Your task to perform on an android device: choose inbox layout in the gmail app Image 0: 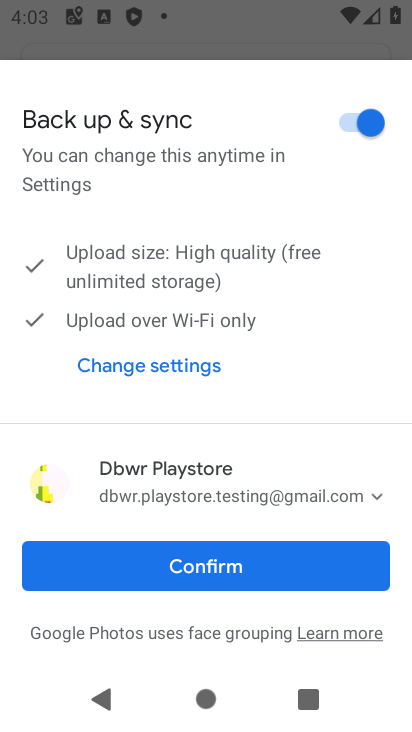
Step 0: press home button
Your task to perform on an android device: choose inbox layout in the gmail app Image 1: 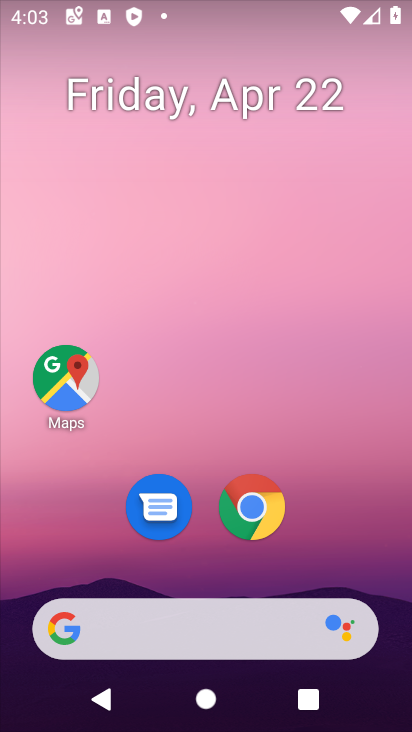
Step 1: drag from (334, 536) to (273, 86)
Your task to perform on an android device: choose inbox layout in the gmail app Image 2: 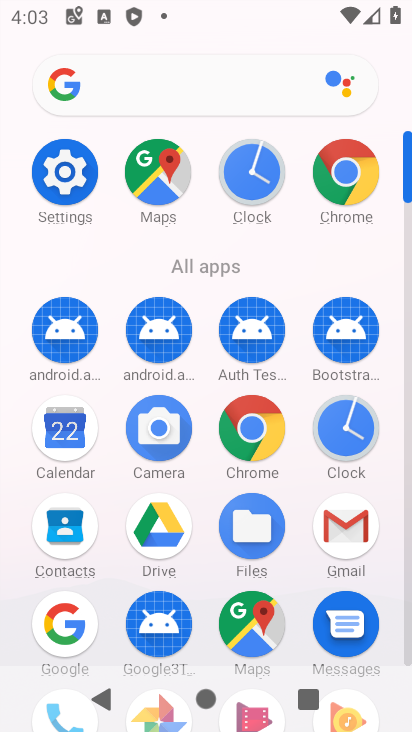
Step 2: click (347, 520)
Your task to perform on an android device: choose inbox layout in the gmail app Image 3: 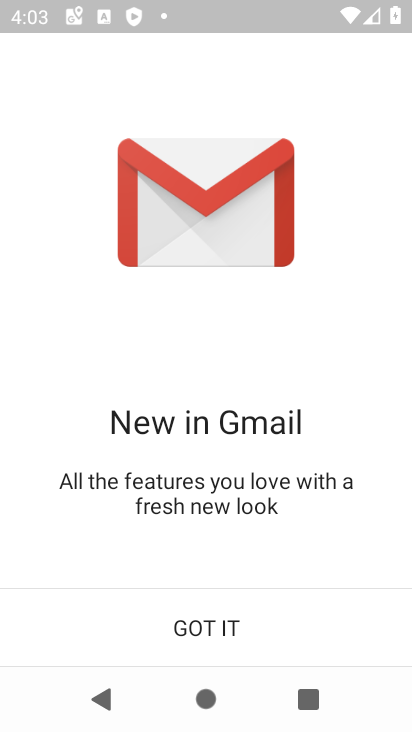
Step 3: click (275, 628)
Your task to perform on an android device: choose inbox layout in the gmail app Image 4: 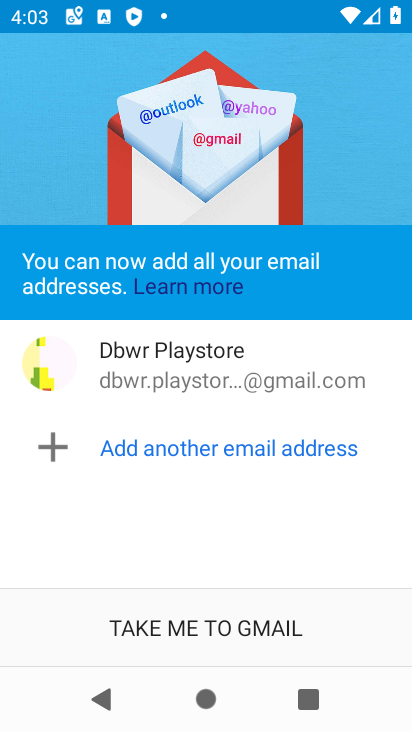
Step 4: click (275, 626)
Your task to perform on an android device: choose inbox layout in the gmail app Image 5: 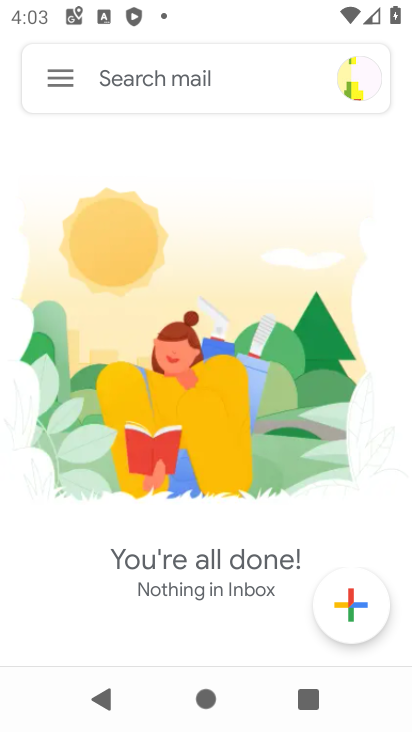
Step 5: click (57, 76)
Your task to perform on an android device: choose inbox layout in the gmail app Image 6: 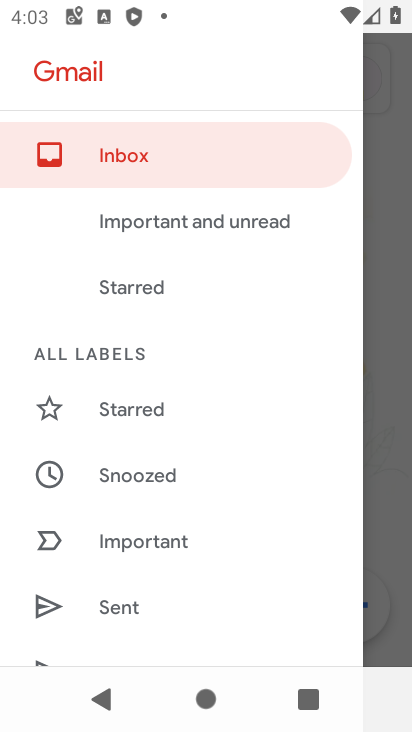
Step 6: drag from (213, 577) to (238, 165)
Your task to perform on an android device: choose inbox layout in the gmail app Image 7: 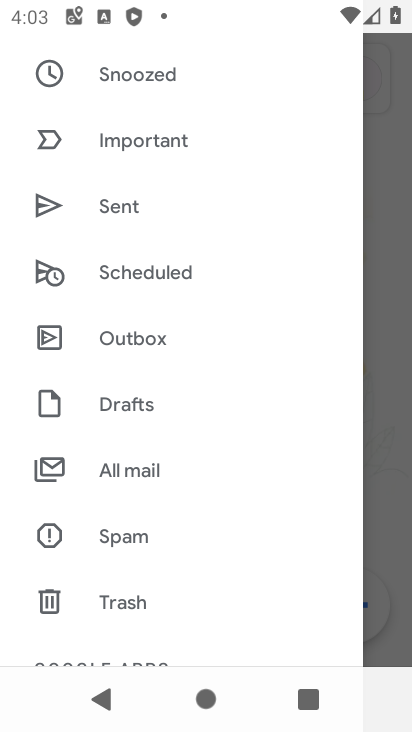
Step 7: drag from (201, 569) to (214, 143)
Your task to perform on an android device: choose inbox layout in the gmail app Image 8: 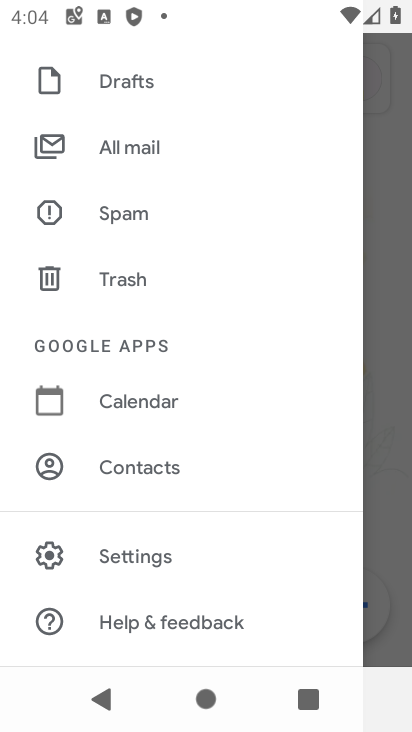
Step 8: click (172, 548)
Your task to perform on an android device: choose inbox layout in the gmail app Image 9: 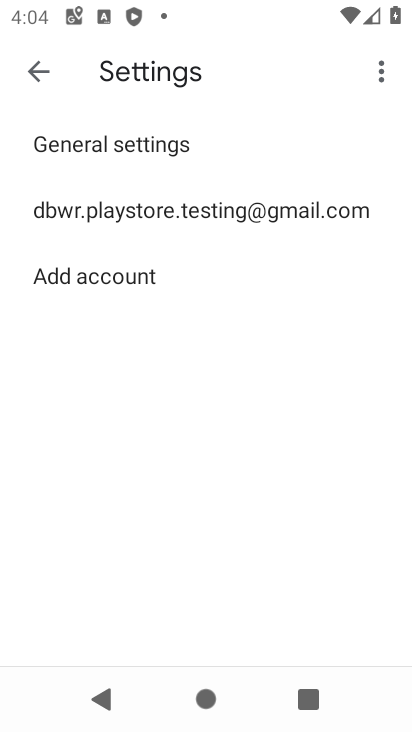
Step 9: click (216, 208)
Your task to perform on an android device: choose inbox layout in the gmail app Image 10: 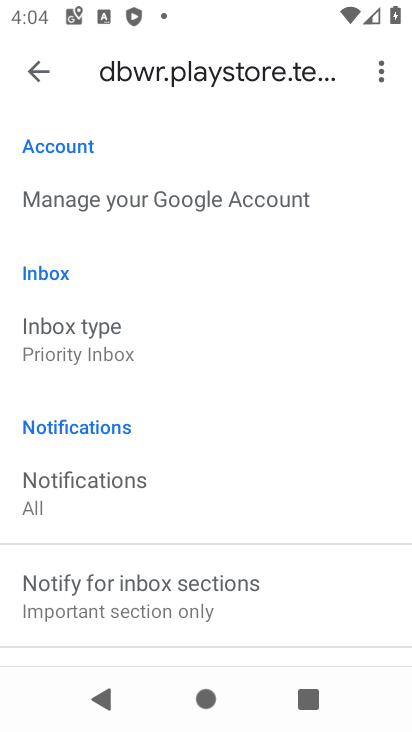
Step 10: drag from (228, 495) to (241, 401)
Your task to perform on an android device: choose inbox layout in the gmail app Image 11: 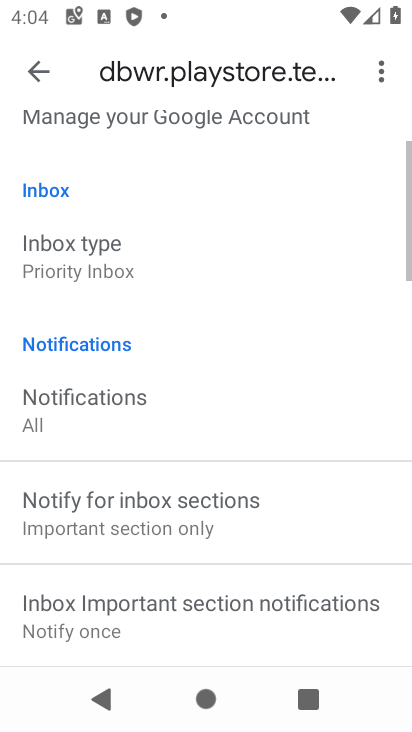
Step 11: click (116, 241)
Your task to perform on an android device: choose inbox layout in the gmail app Image 12: 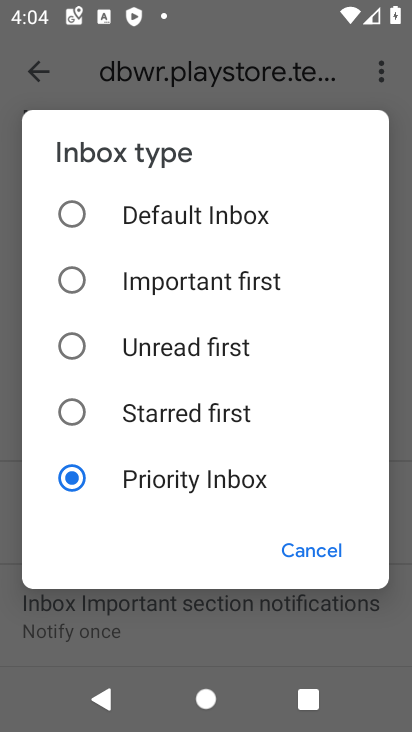
Step 12: click (79, 205)
Your task to perform on an android device: choose inbox layout in the gmail app Image 13: 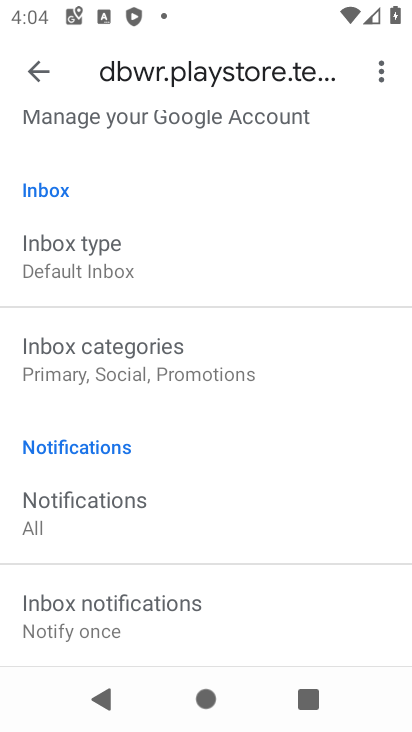
Step 13: task complete